Your task to perform on an android device: move an email to a new category in the gmail app Image 0: 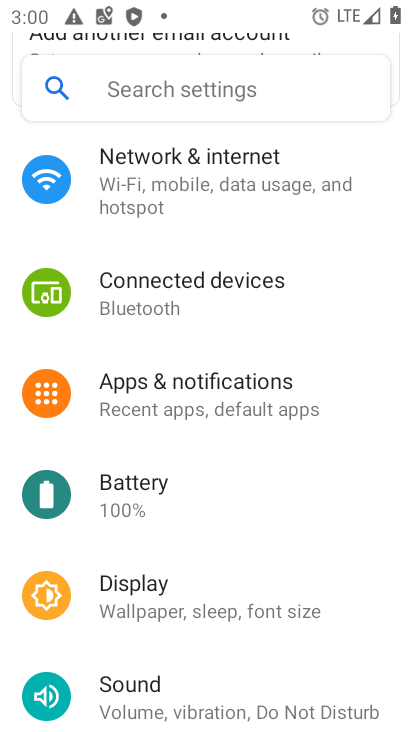
Step 0: press home button
Your task to perform on an android device: move an email to a new category in the gmail app Image 1: 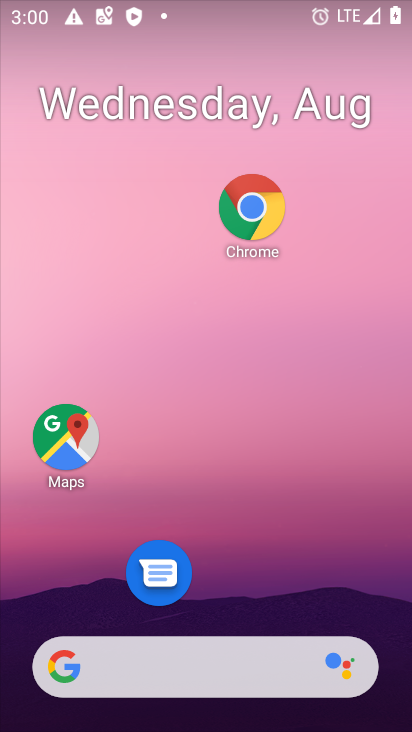
Step 1: drag from (248, 605) to (264, 203)
Your task to perform on an android device: move an email to a new category in the gmail app Image 2: 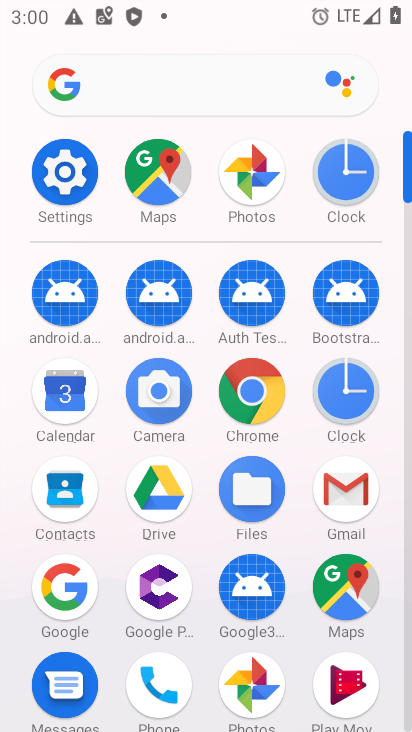
Step 2: click (366, 490)
Your task to perform on an android device: move an email to a new category in the gmail app Image 3: 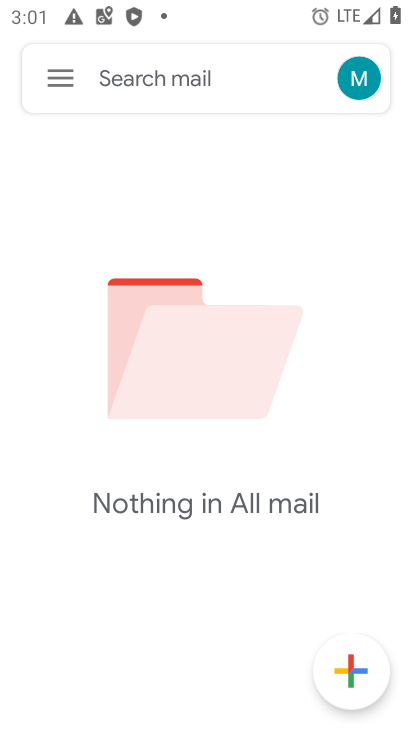
Step 3: click (70, 81)
Your task to perform on an android device: move an email to a new category in the gmail app Image 4: 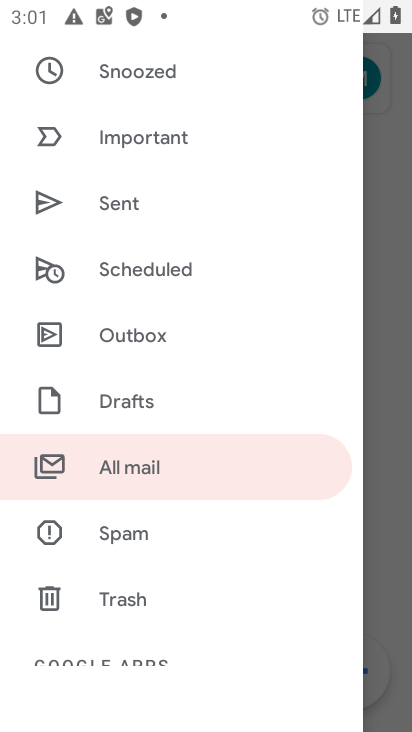
Step 4: drag from (183, 528) to (178, 269)
Your task to perform on an android device: move an email to a new category in the gmail app Image 5: 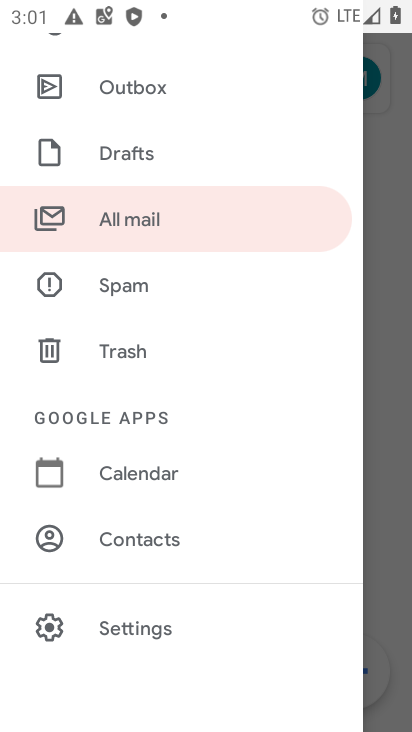
Step 5: click (178, 269)
Your task to perform on an android device: move an email to a new category in the gmail app Image 6: 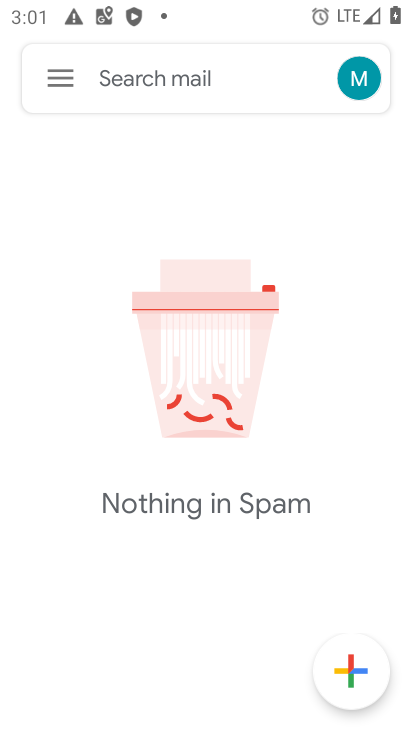
Step 6: click (65, 75)
Your task to perform on an android device: move an email to a new category in the gmail app Image 7: 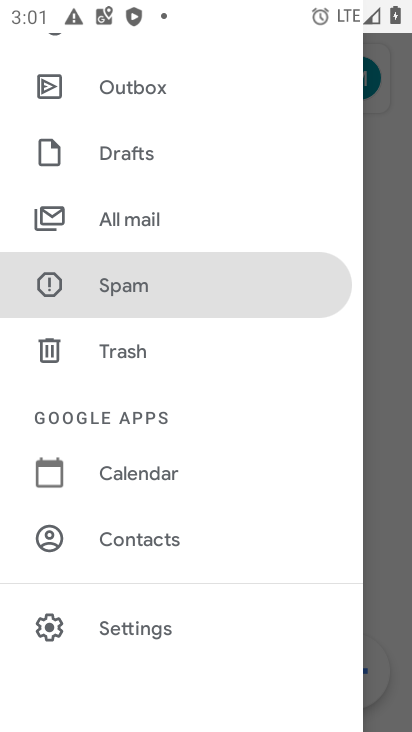
Step 7: click (139, 220)
Your task to perform on an android device: move an email to a new category in the gmail app Image 8: 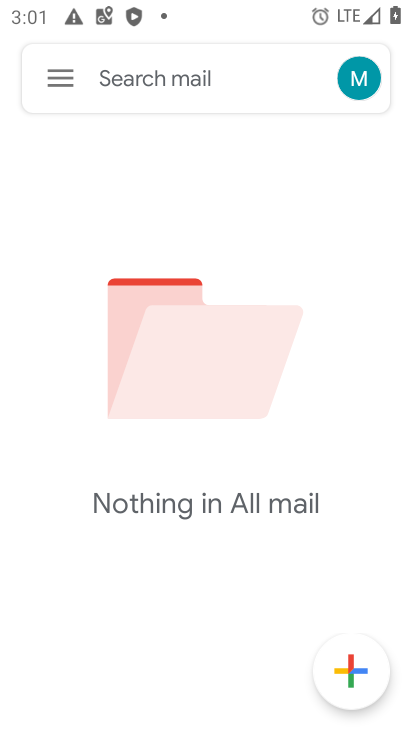
Step 8: task complete